Your task to perform on an android device: turn on translation in the chrome app Image 0: 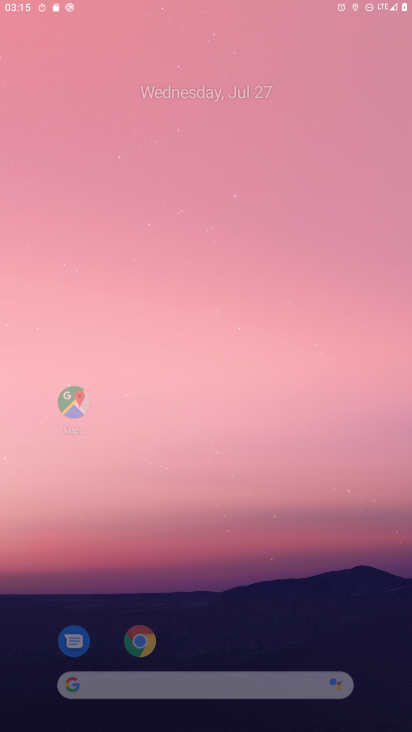
Step 0: drag from (339, 629) to (274, 16)
Your task to perform on an android device: turn on translation in the chrome app Image 1: 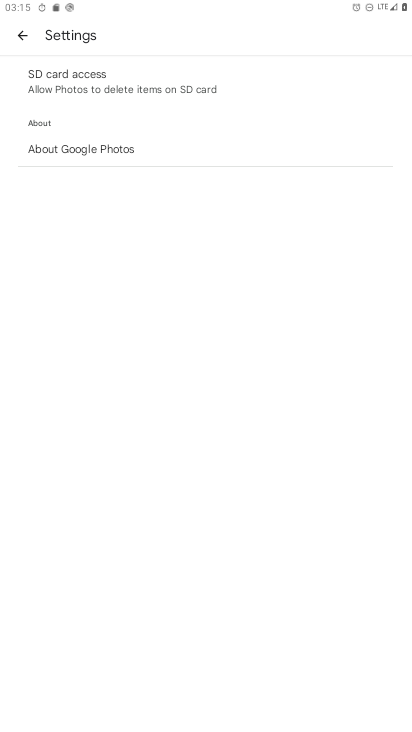
Step 1: press home button
Your task to perform on an android device: turn on translation in the chrome app Image 2: 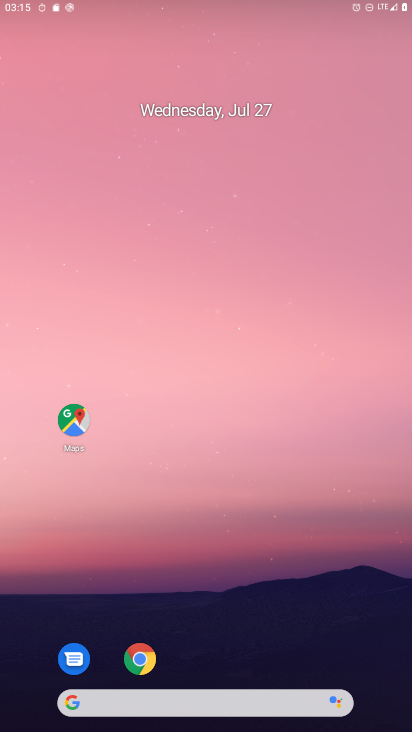
Step 2: drag from (317, 616) to (184, 12)
Your task to perform on an android device: turn on translation in the chrome app Image 3: 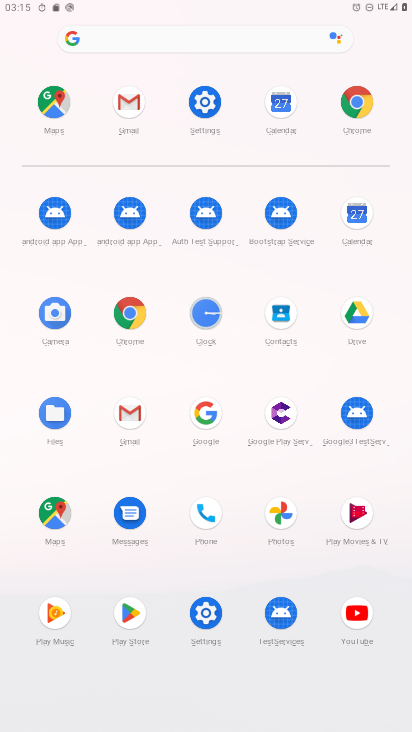
Step 3: click (359, 98)
Your task to perform on an android device: turn on translation in the chrome app Image 4: 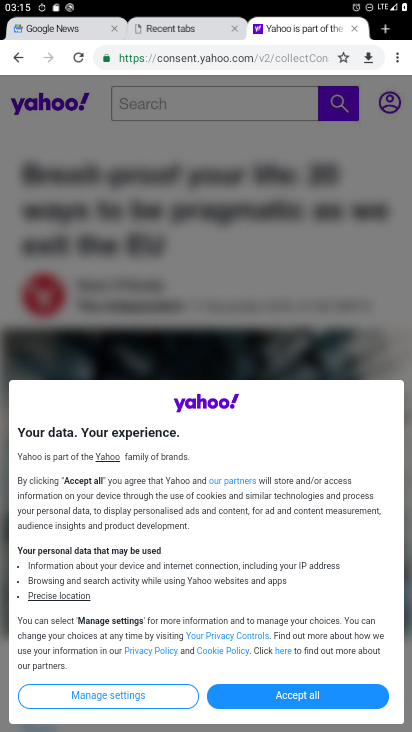
Step 4: drag from (390, 53) to (294, 380)
Your task to perform on an android device: turn on translation in the chrome app Image 5: 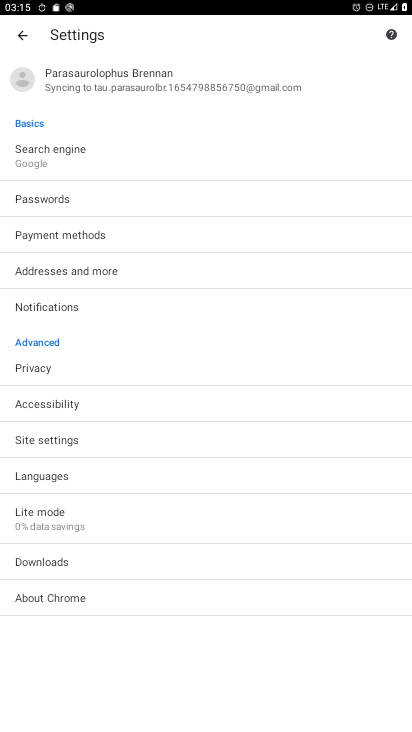
Step 5: click (56, 299)
Your task to perform on an android device: turn on translation in the chrome app Image 6: 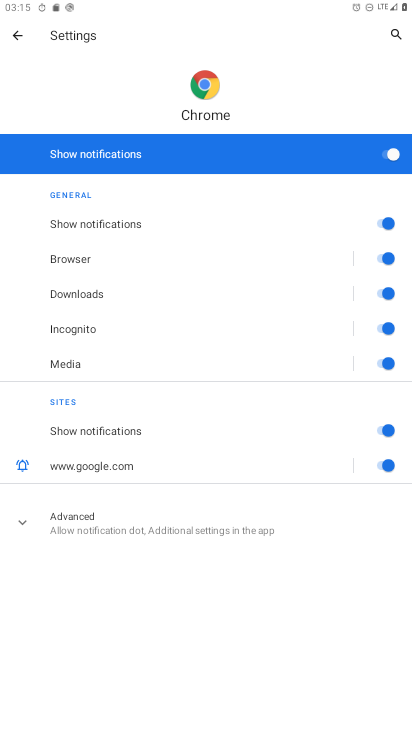
Step 6: click (8, 32)
Your task to perform on an android device: turn on translation in the chrome app Image 7: 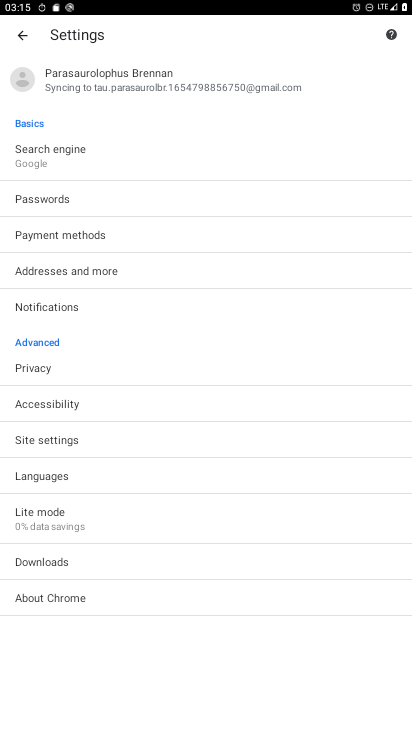
Step 7: click (53, 477)
Your task to perform on an android device: turn on translation in the chrome app Image 8: 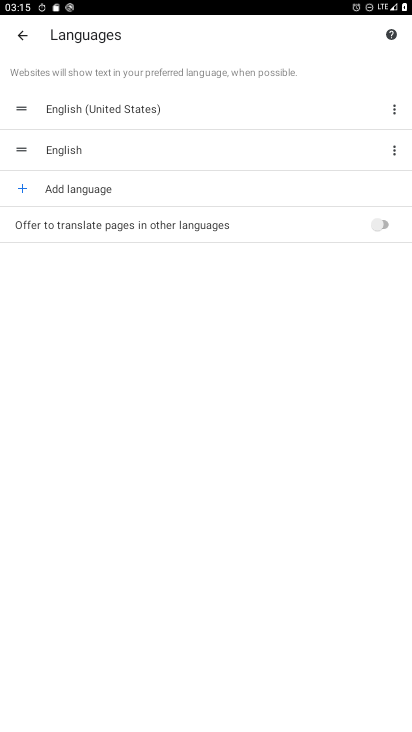
Step 8: click (362, 213)
Your task to perform on an android device: turn on translation in the chrome app Image 9: 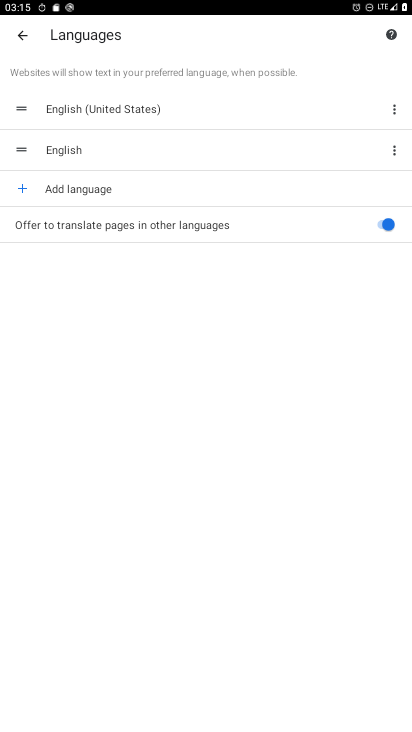
Step 9: task complete